Your task to perform on an android device: turn notification dots off Image 0: 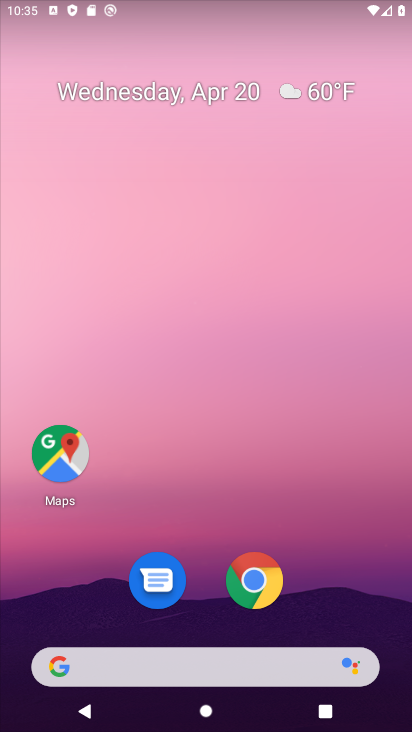
Step 0: click (192, 384)
Your task to perform on an android device: turn notification dots off Image 1: 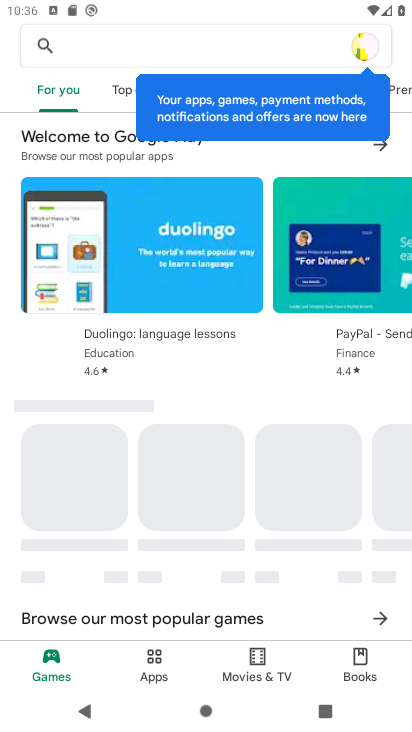
Step 1: press home button
Your task to perform on an android device: turn notification dots off Image 2: 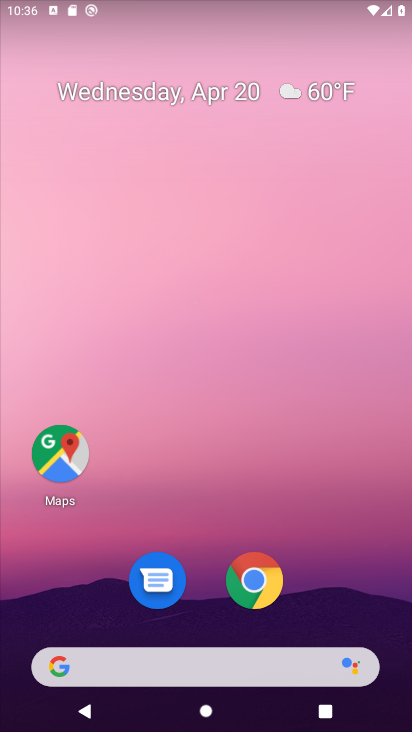
Step 2: drag from (191, 655) to (214, 3)
Your task to perform on an android device: turn notification dots off Image 3: 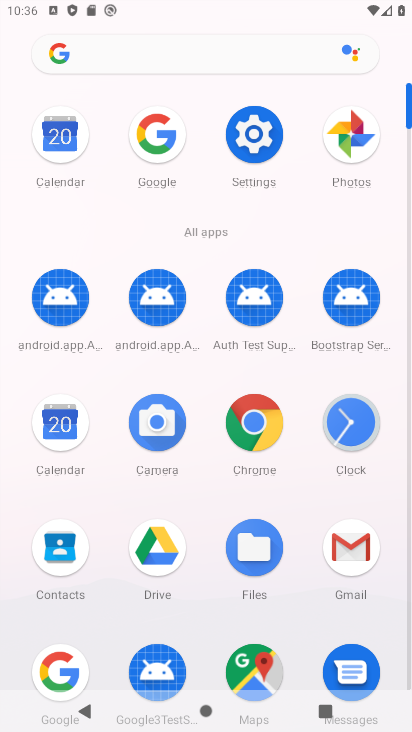
Step 3: click (265, 148)
Your task to perform on an android device: turn notification dots off Image 4: 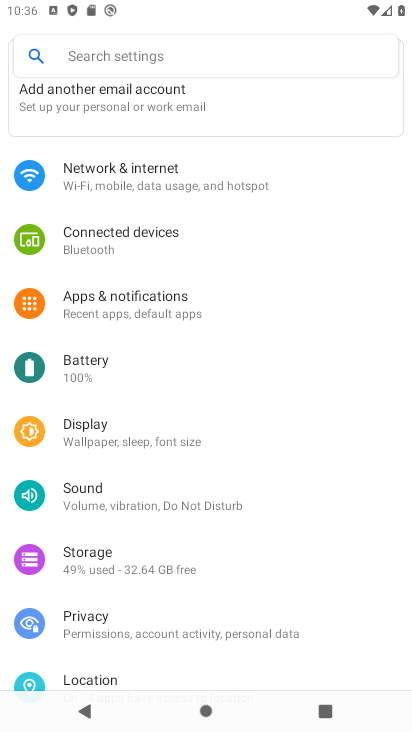
Step 4: click (140, 313)
Your task to perform on an android device: turn notification dots off Image 5: 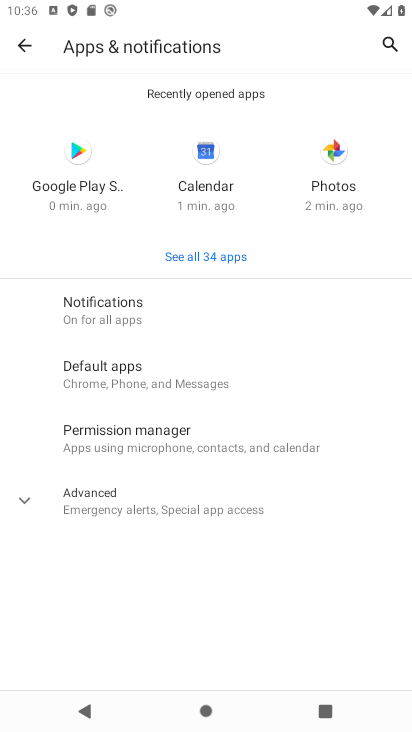
Step 5: click (102, 324)
Your task to perform on an android device: turn notification dots off Image 6: 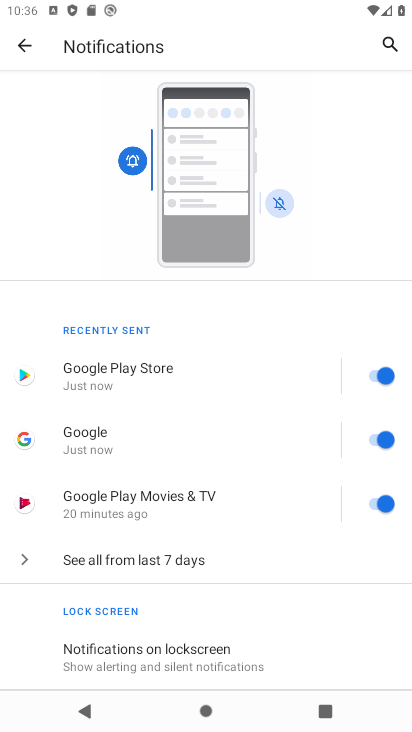
Step 6: drag from (154, 649) to (118, 78)
Your task to perform on an android device: turn notification dots off Image 7: 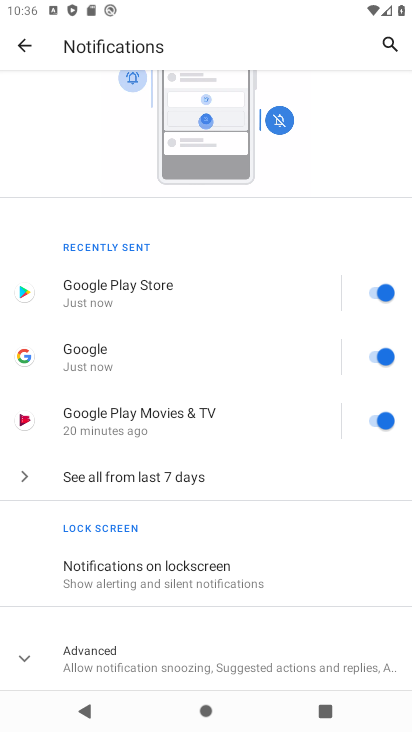
Step 7: click (123, 633)
Your task to perform on an android device: turn notification dots off Image 8: 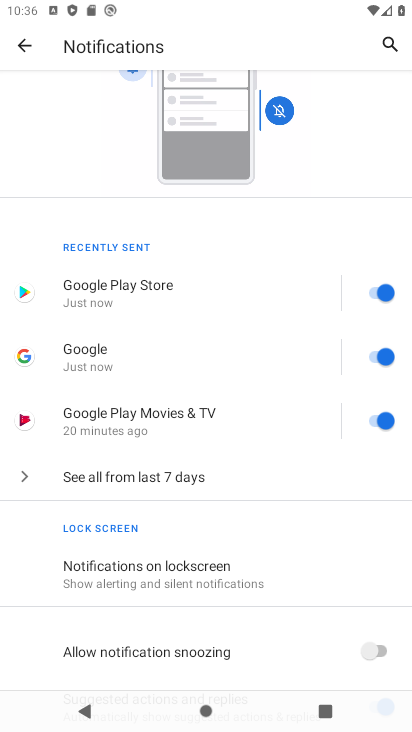
Step 8: drag from (136, 608) to (142, 149)
Your task to perform on an android device: turn notification dots off Image 9: 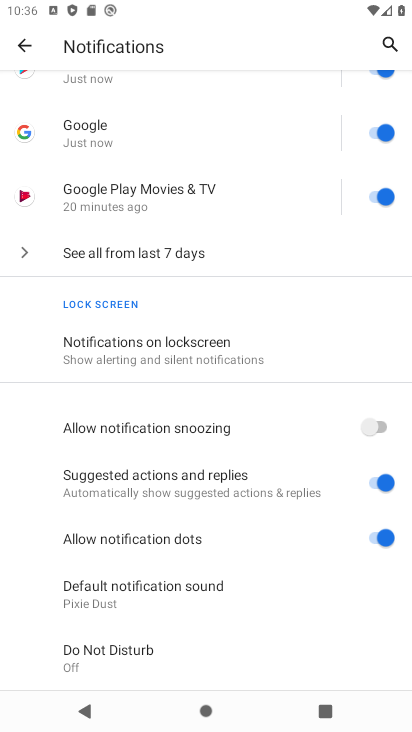
Step 9: click (384, 547)
Your task to perform on an android device: turn notification dots off Image 10: 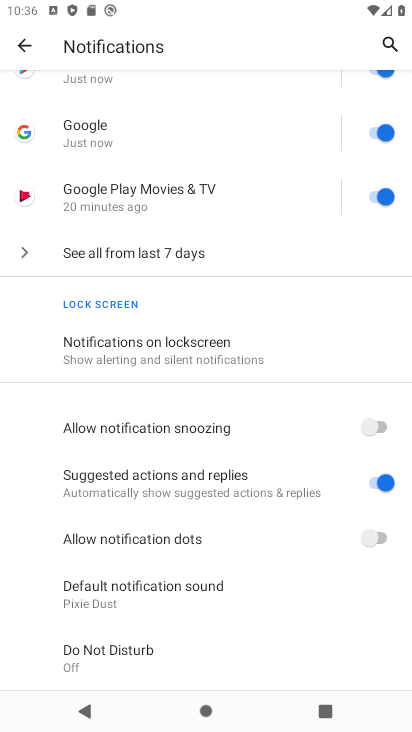
Step 10: task complete